Your task to perform on an android device: turn on location history Image 0: 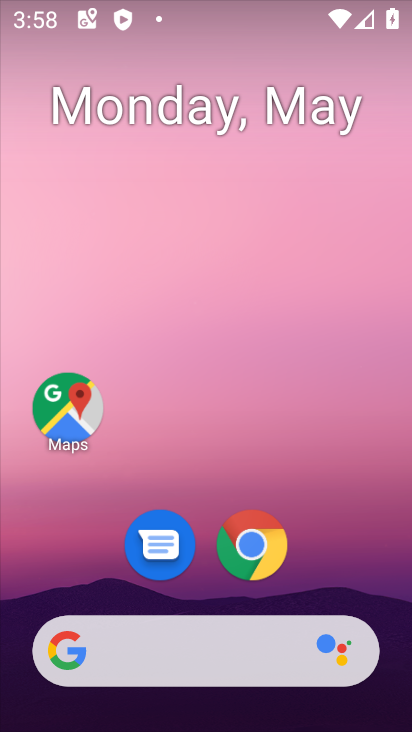
Step 0: drag from (206, 589) to (220, 50)
Your task to perform on an android device: turn on location history Image 1: 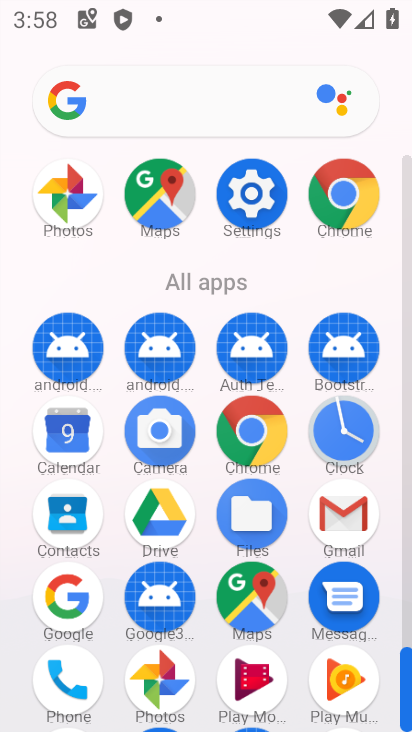
Step 1: click (252, 192)
Your task to perform on an android device: turn on location history Image 2: 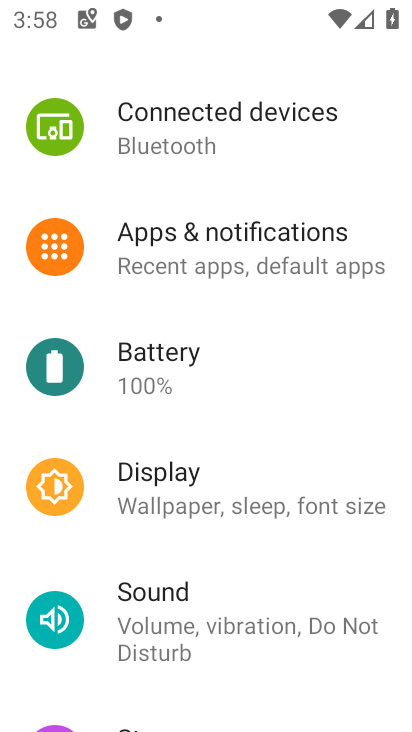
Step 2: drag from (211, 549) to (201, 26)
Your task to perform on an android device: turn on location history Image 3: 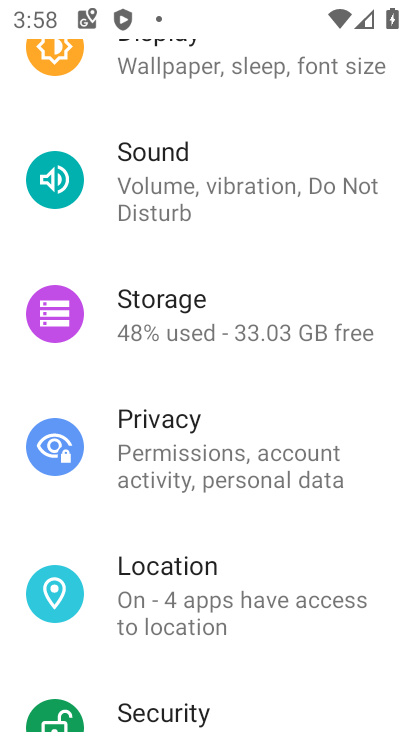
Step 3: click (182, 579)
Your task to perform on an android device: turn on location history Image 4: 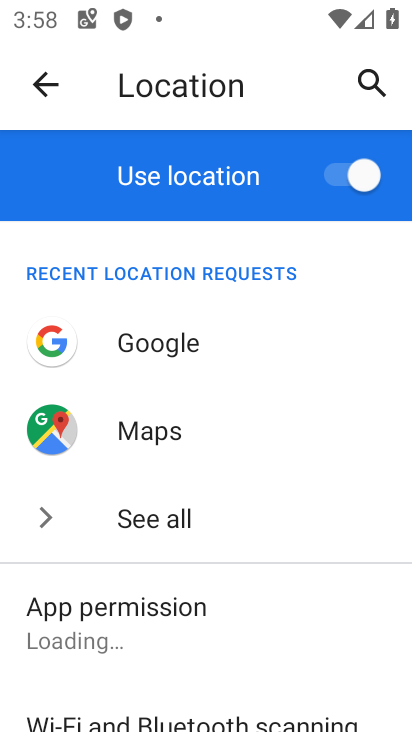
Step 4: drag from (261, 508) to (279, 146)
Your task to perform on an android device: turn on location history Image 5: 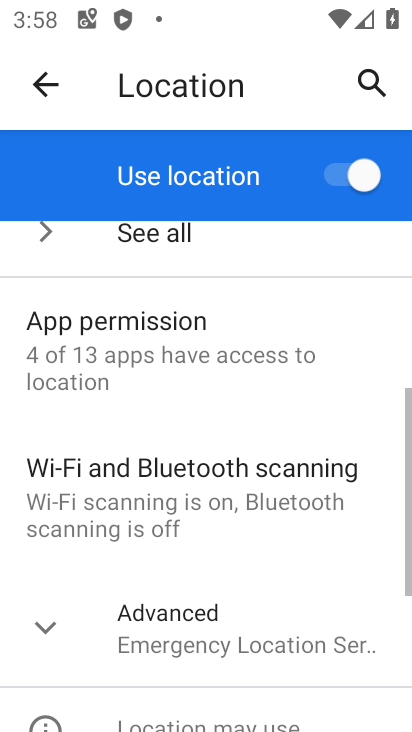
Step 5: click (157, 610)
Your task to perform on an android device: turn on location history Image 6: 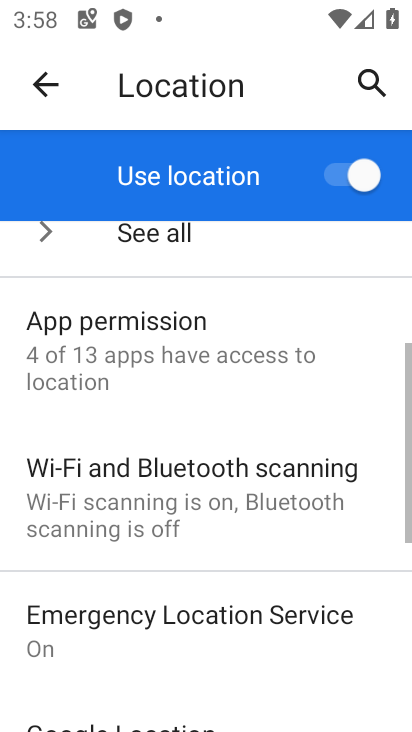
Step 6: drag from (234, 543) to (238, 39)
Your task to perform on an android device: turn on location history Image 7: 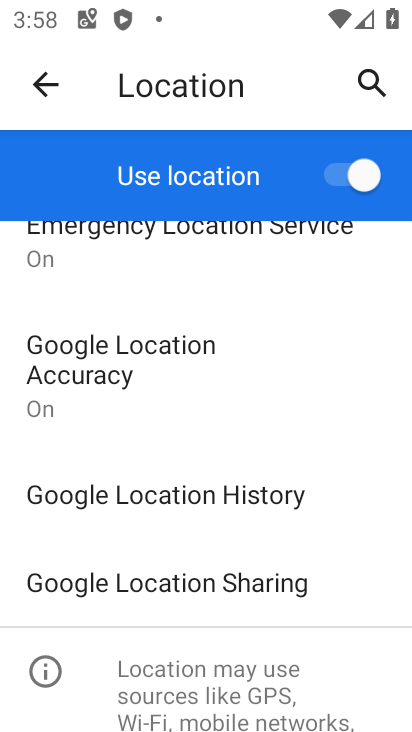
Step 7: click (188, 480)
Your task to perform on an android device: turn on location history Image 8: 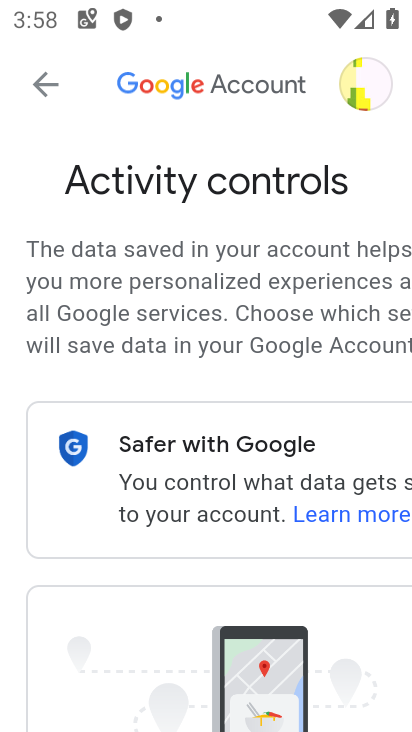
Step 8: task complete